Your task to perform on an android device: turn off improve location accuracy Image 0: 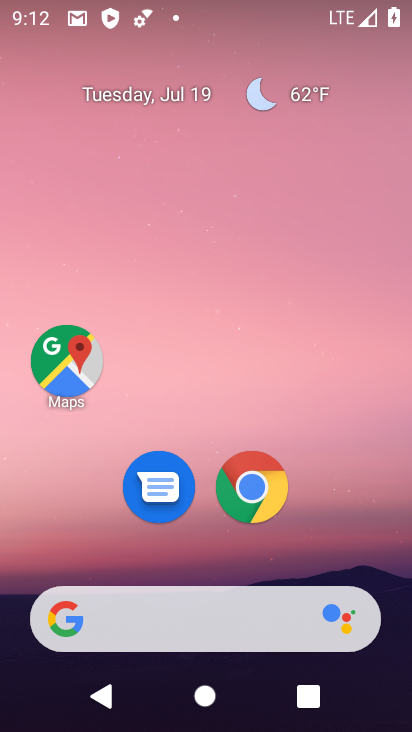
Step 0: drag from (67, 445) to (166, 50)
Your task to perform on an android device: turn off improve location accuracy Image 1: 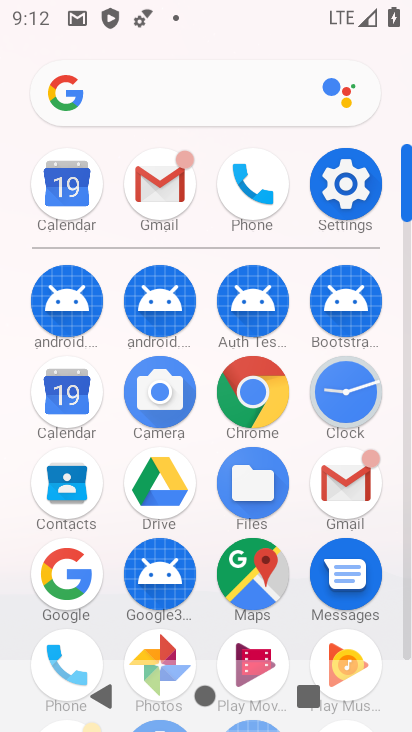
Step 1: click (342, 190)
Your task to perform on an android device: turn off improve location accuracy Image 2: 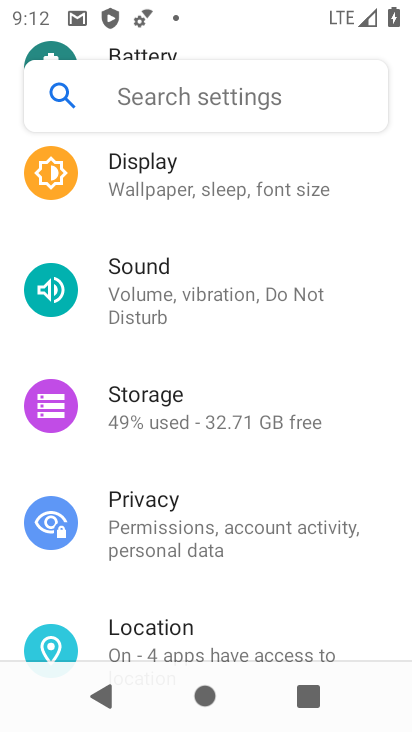
Step 2: click (171, 640)
Your task to perform on an android device: turn off improve location accuracy Image 3: 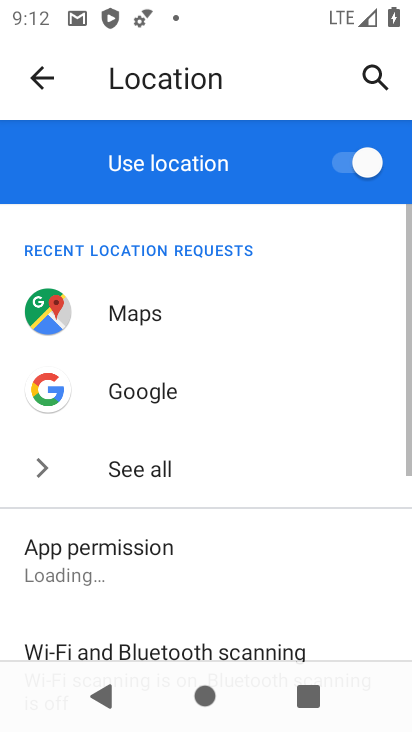
Step 3: drag from (193, 625) to (253, 119)
Your task to perform on an android device: turn off improve location accuracy Image 4: 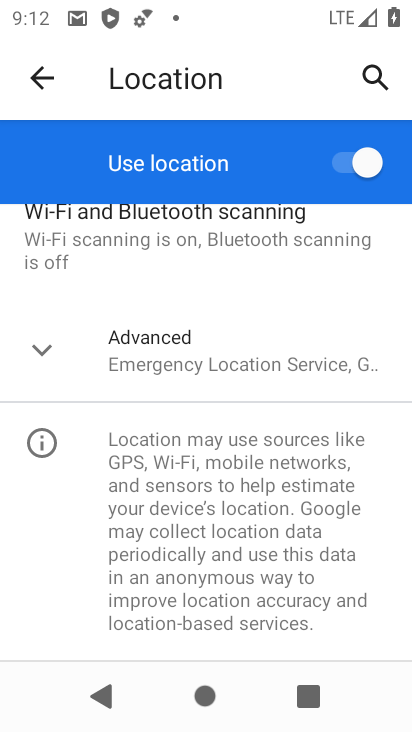
Step 4: drag from (255, 580) to (264, 434)
Your task to perform on an android device: turn off improve location accuracy Image 5: 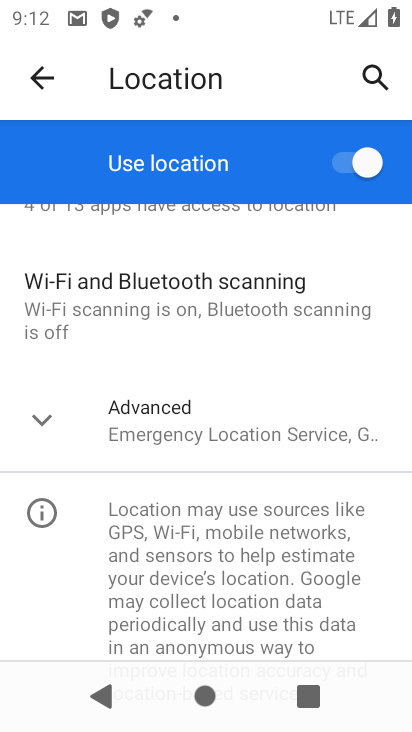
Step 5: click (250, 436)
Your task to perform on an android device: turn off improve location accuracy Image 6: 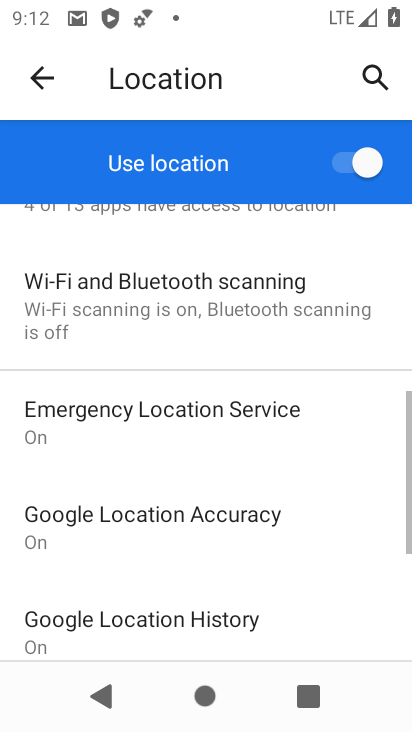
Step 6: click (193, 536)
Your task to perform on an android device: turn off improve location accuracy Image 7: 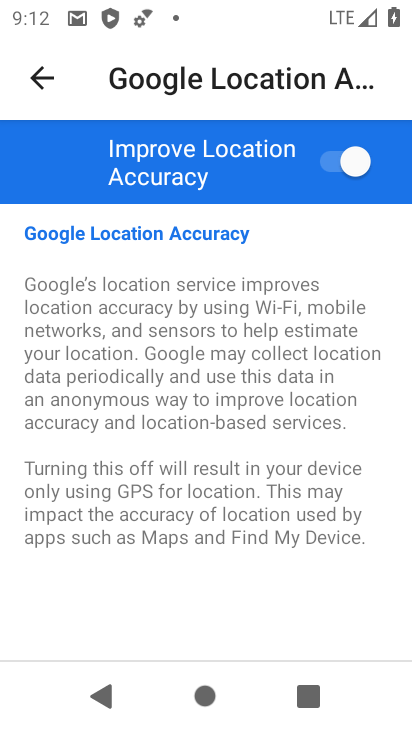
Step 7: click (354, 158)
Your task to perform on an android device: turn off improve location accuracy Image 8: 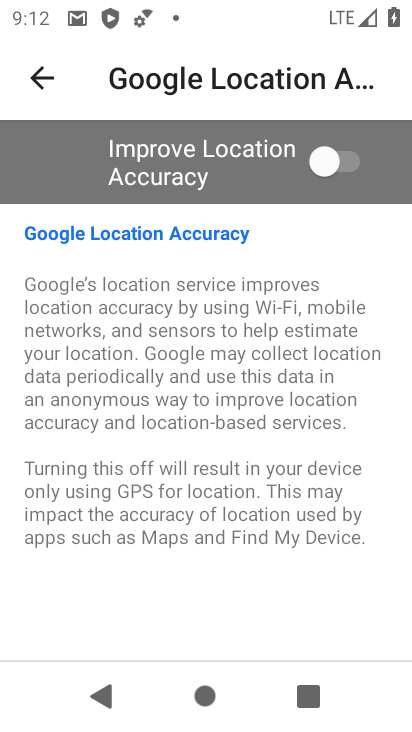
Step 8: task complete